Your task to perform on an android device: Open settings on Google Maps Image 0: 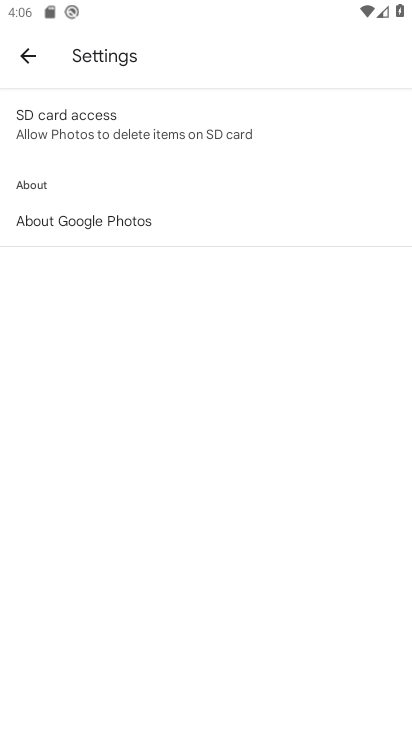
Step 0: press home button
Your task to perform on an android device: Open settings on Google Maps Image 1: 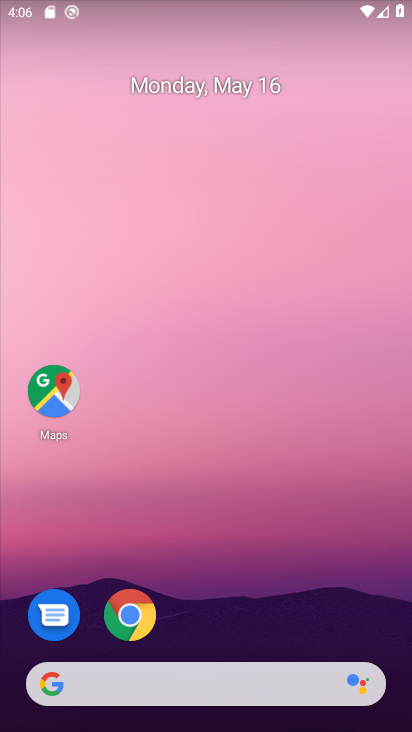
Step 1: drag from (242, 607) to (330, 175)
Your task to perform on an android device: Open settings on Google Maps Image 2: 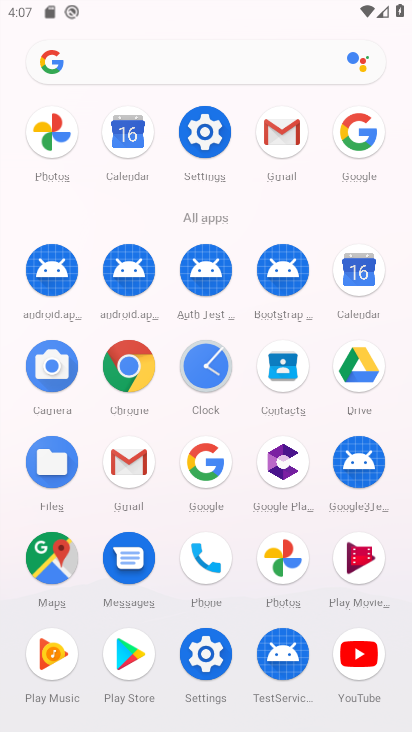
Step 2: click (52, 563)
Your task to perform on an android device: Open settings on Google Maps Image 3: 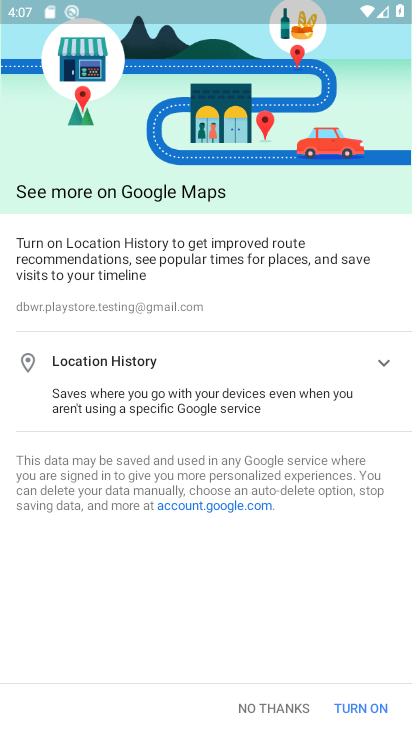
Step 3: click (265, 702)
Your task to perform on an android device: Open settings on Google Maps Image 4: 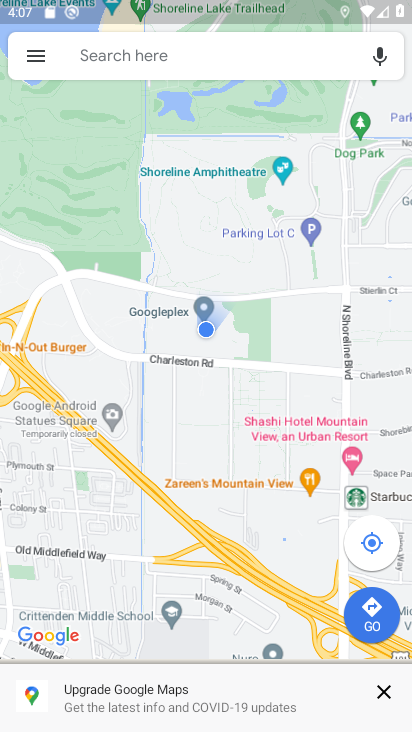
Step 4: click (33, 55)
Your task to perform on an android device: Open settings on Google Maps Image 5: 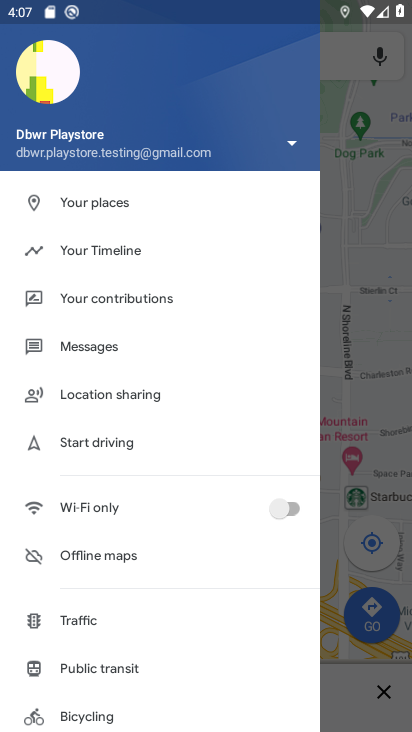
Step 5: drag from (119, 621) to (188, 295)
Your task to perform on an android device: Open settings on Google Maps Image 6: 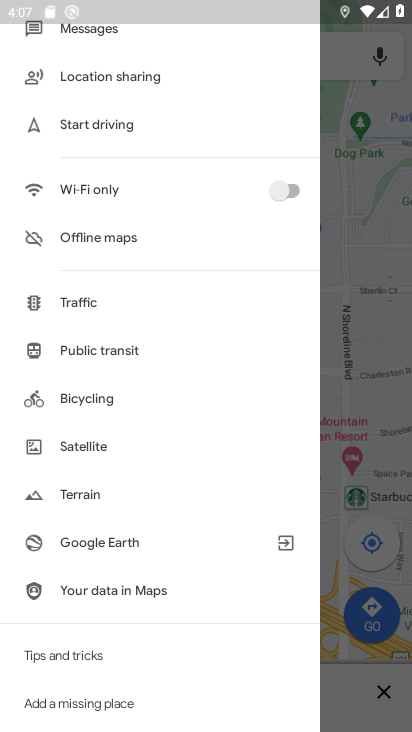
Step 6: drag from (115, 656) to (174, 317)
Your task to perform on an android device: Open settings on Google Maps Image 7: 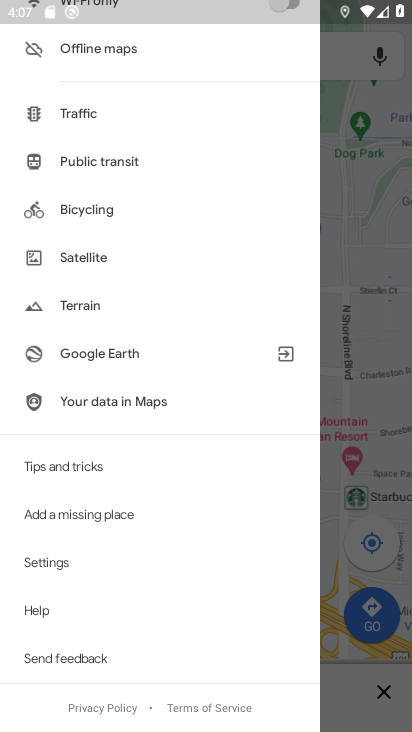
Step 7: click (39, 573)
Your task to perform on an android device: Open settings on Google Maps Image 8: 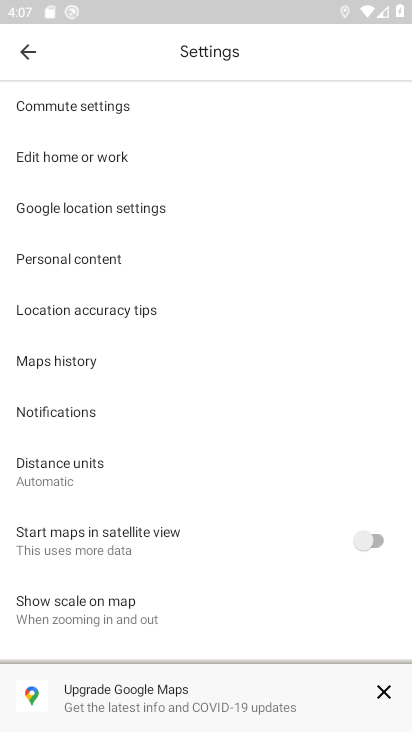
Step 8: task complete